Your task to perform on an android device: add a contact in the contacts app Image 0: 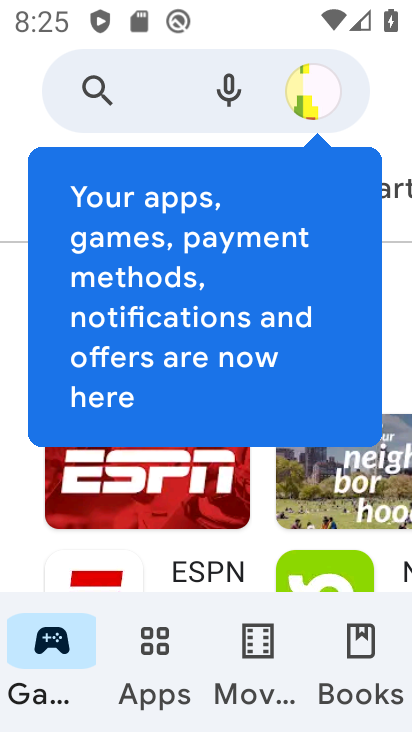
Step 0: press home button
Your task to perform on an android device: add a contact in the contacts app Image 1: 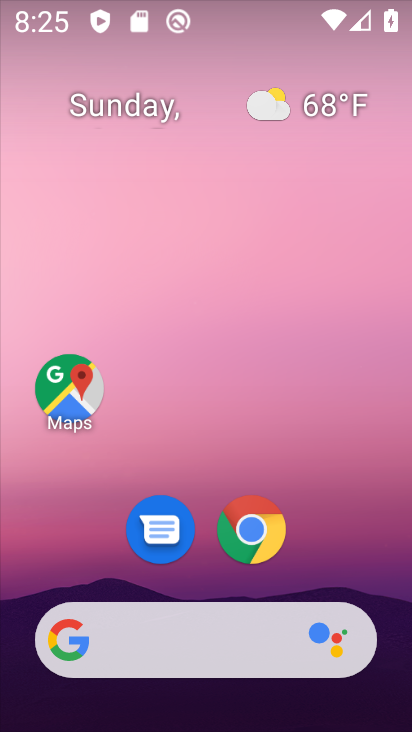
Step 1: drag from (208, 575) to (208, 54)
Your task to perform on an android device: add a contact in the contacts app Image 2: 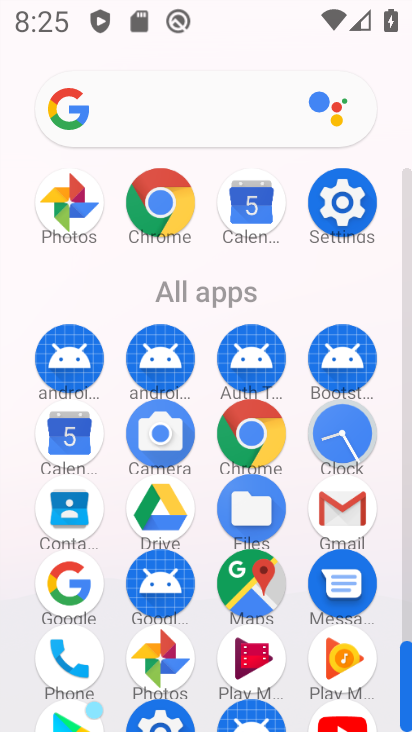
Step 2: drag from (204, 617) to (231, 190)
Your task to perform on an android device: add a contact in the contacts app Image 3: 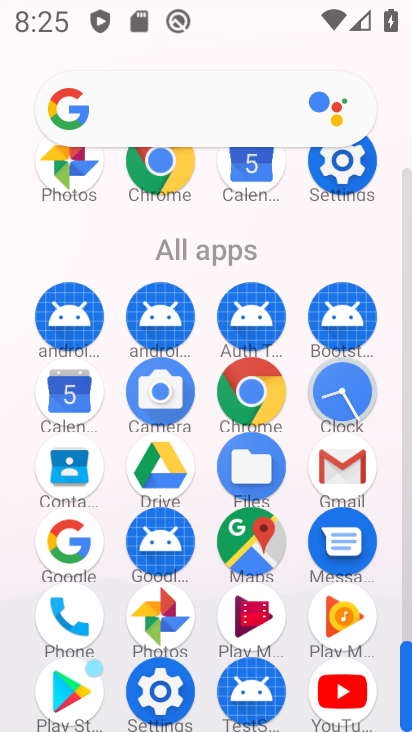
Step 3: click (65, 461)
Your task to perform on an android device: add a contact in the contacts app Image 4: 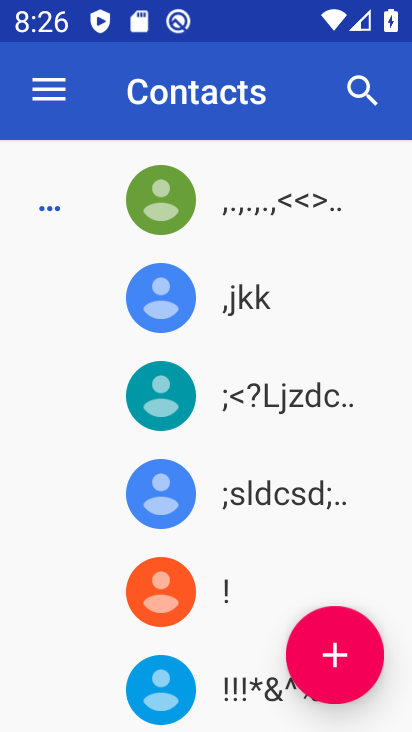
Step 4: click (336, 650)
Your task to perform on an android device: add a contact in the contacts app Image 5: 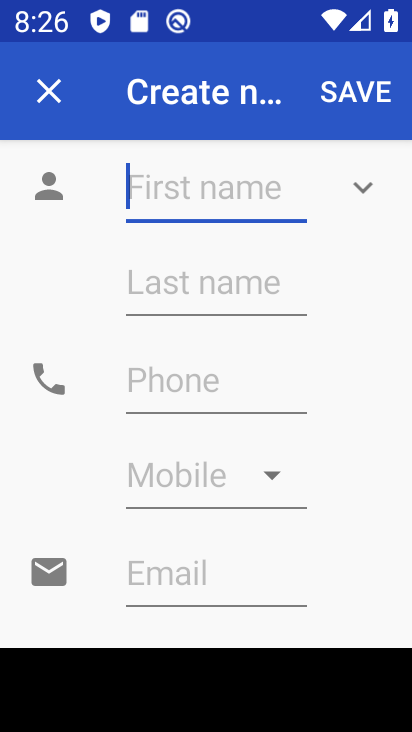
Step 5: type "hcxrtfgvhg"
Your task to perform on an android device: add a contact in the contacts app Image 6: 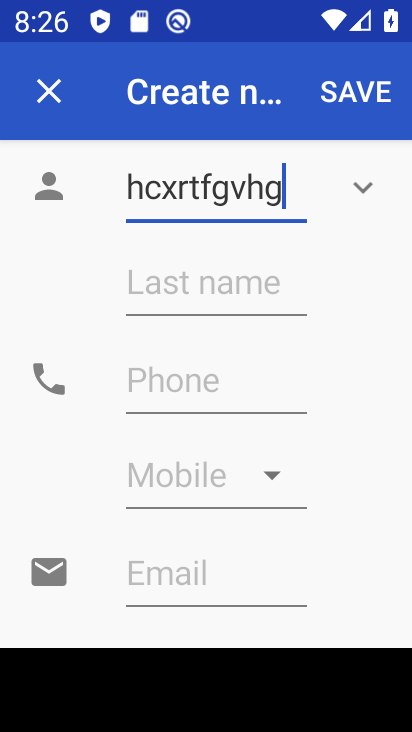
Step 6: click (347, 102)
Your task to perform on an android device: add a contact in the contacts app Image 7: 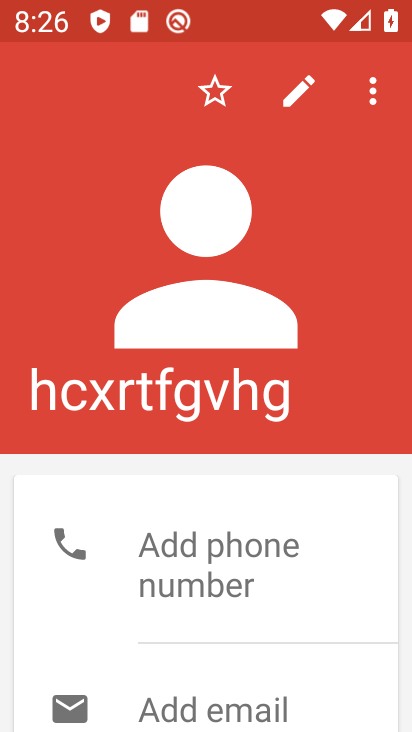
Step 7: task complete